Your task to perform on an android device: set the stopwatch Image 0: 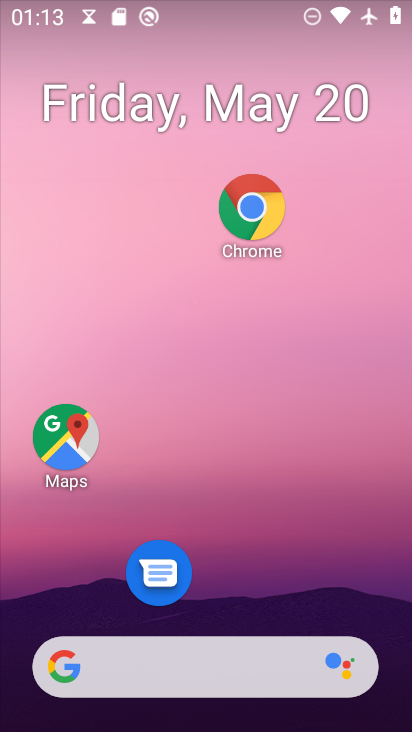
Step 0: drag from (272, 529) to (272, 0)
Your task to perform on an android device: set the stopwatch Image 1: 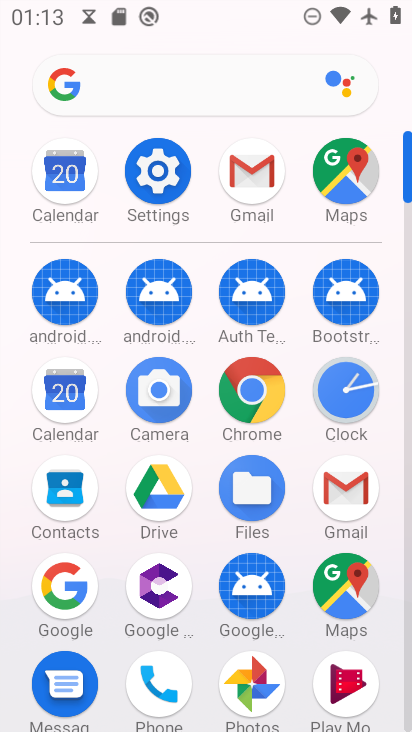
Step 1: click (350, 387)
Your task to perform on an android device: set the stopwatch Image 2: 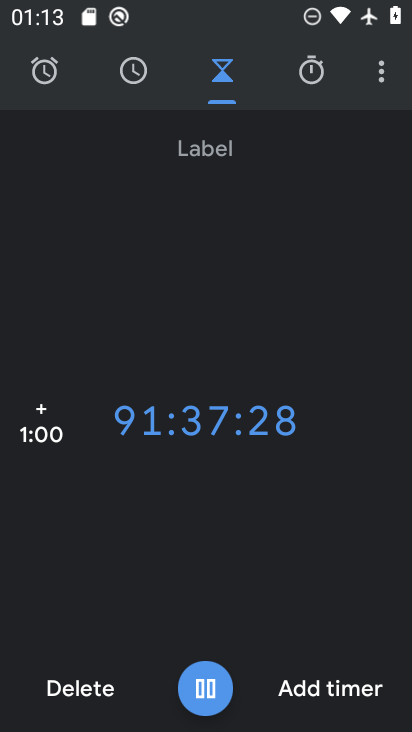
Step 2: click (305, 73)
Your task to perform on an android device: set the stopwatch Image 3: 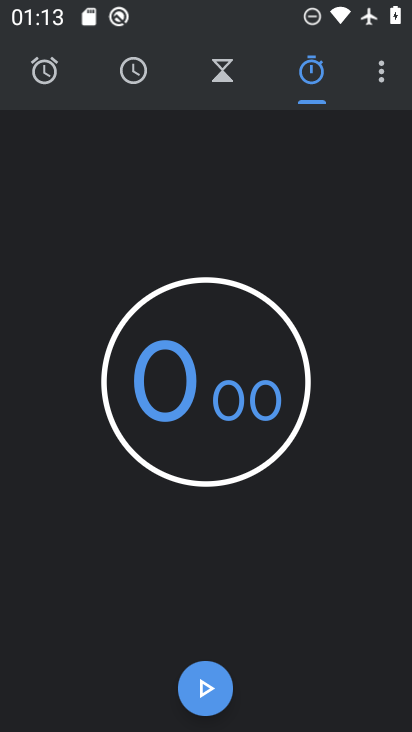
Step 3: click (186, 684)
Your task to perform on an android device: set the stopwatch Image 4: 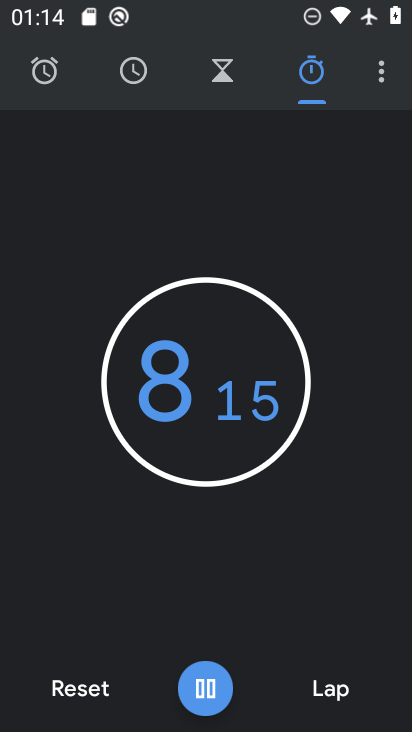
Step 4: task complete